Your task to perform on an android device: turn off javascript in the chrome app Image 0: 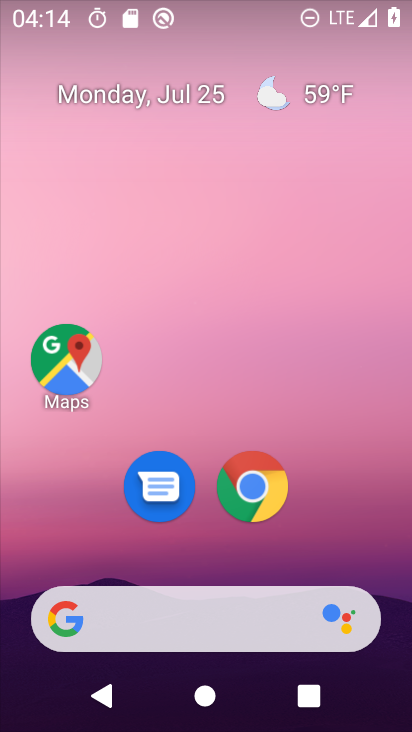
Step 0: click (254, 479)
Your task to perform on an android device: turn off javascript in the chrome app Image 1: 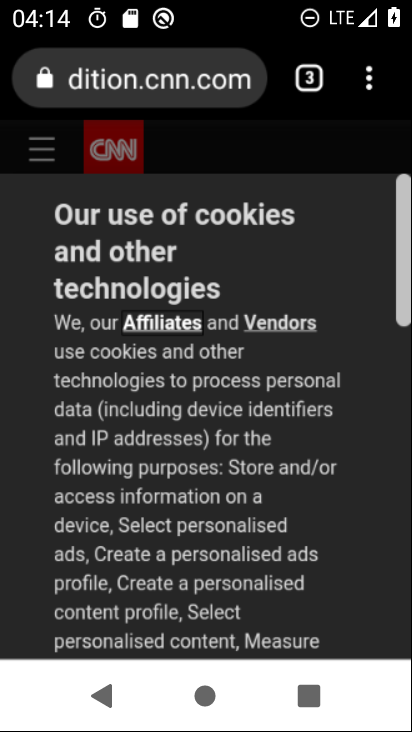
Step 1: drag from (371, 75) to (105, 538)
Your task to perform on an android device: turn off javascript in the chrome app Image 2: 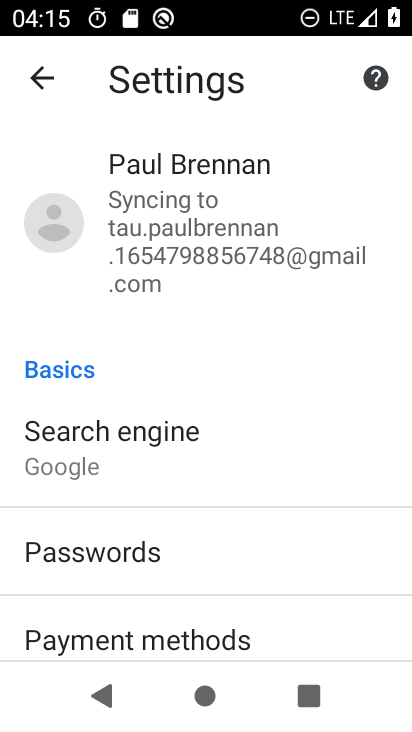
Step 2: drag from (147, 596) to (251, 75)
Your task to perform on an android device: turn off javascript in the chrome app Image 3: 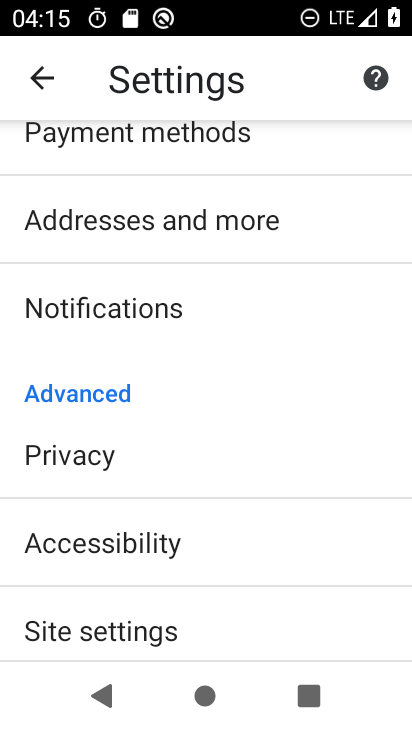
Step 3: click (123, 626)
Your task to perform on an android device: turn off javascript in the chrome app Image 4: 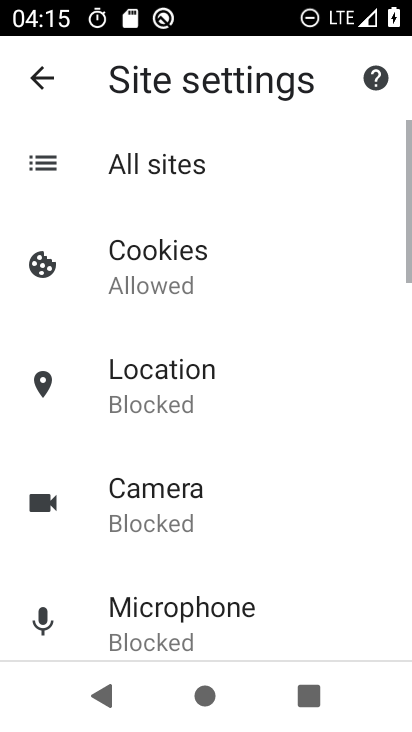
Step 4: drag from (134, 593) to (299, 3)
Your task to perform on an android device: turn off javascript in the chrome app Image 5: 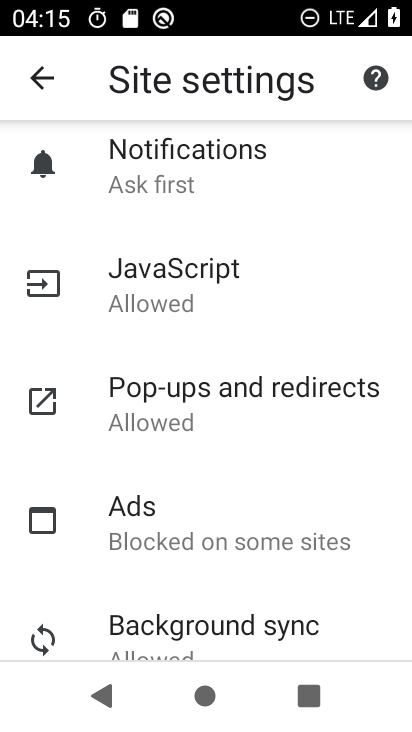
Step 5: click (185, 276)
Your task to perform on an android device: turn off javascript in the chrome app Image 6: 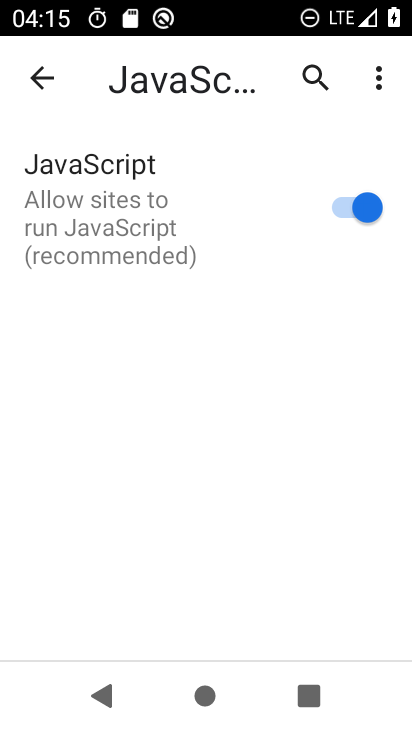
Step 6: click (362, 196)
Your task to perform on an android device: turn off javascript in the chrome app Image 7: 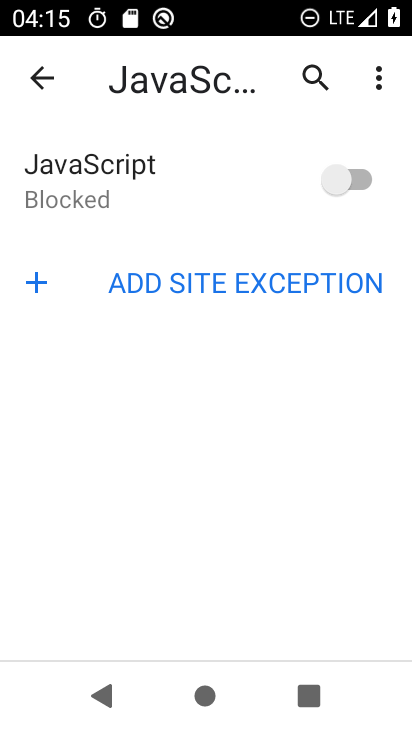
Step 7: task complete